Your task to perform on an android device: Search for sushi restaurants on Maps Image 0: 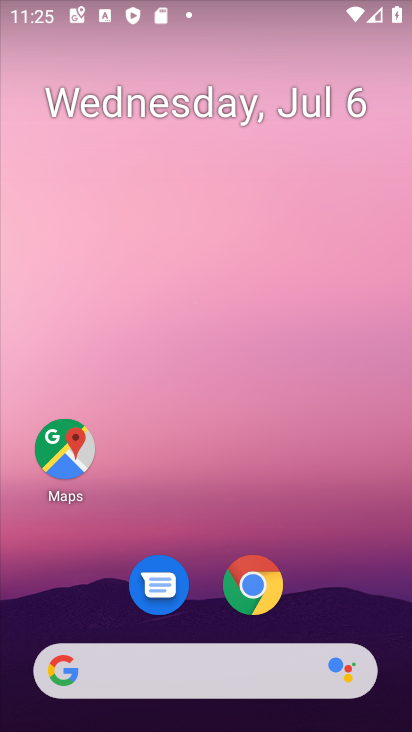
Step 0: click (81, 444)
Your task to perform on an android device: Search for sushi restaurants on Maps Image 1: 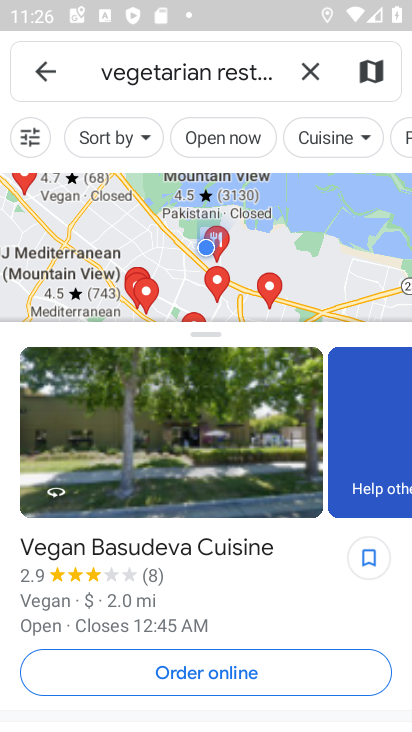
Step 1: click (313, 70)
Your task to perform on an android device: Search for sushi restaurants on Maps Image 2: 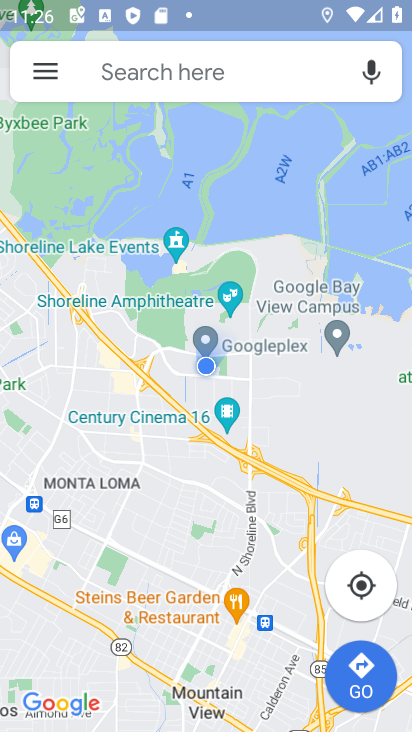
Step 2: click (286, 70)
Your task to perform on an android device: Search for sushi restaurants on Maps Image 3: 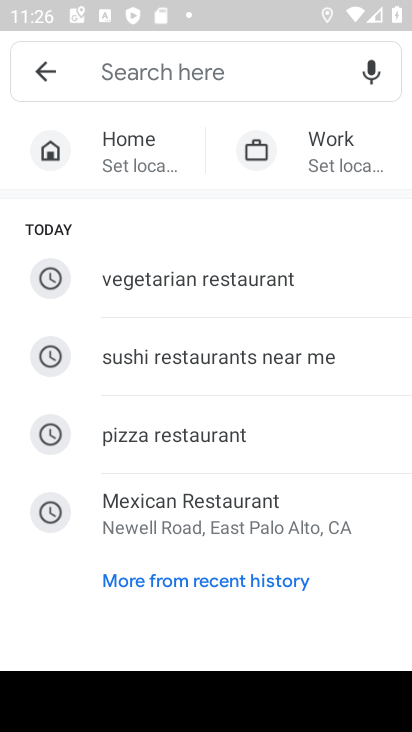
Step 3: click (247, 347)
Your task to perform on an android device: Search for sushi restaurants on Maps Image 4: 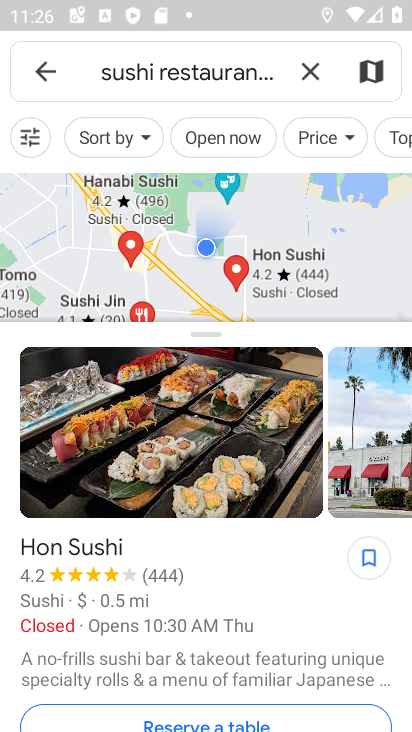
Step 4: task complete